Your task to perform on an android device: Open Google Chrome Image 0: 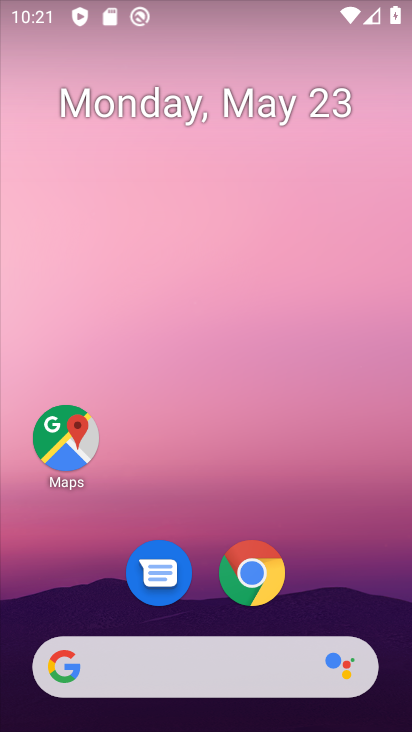
Step 0: drag from (350, 539) to (254, 5)
Your task to perform on an android device: Open Google Chrome Image 1: 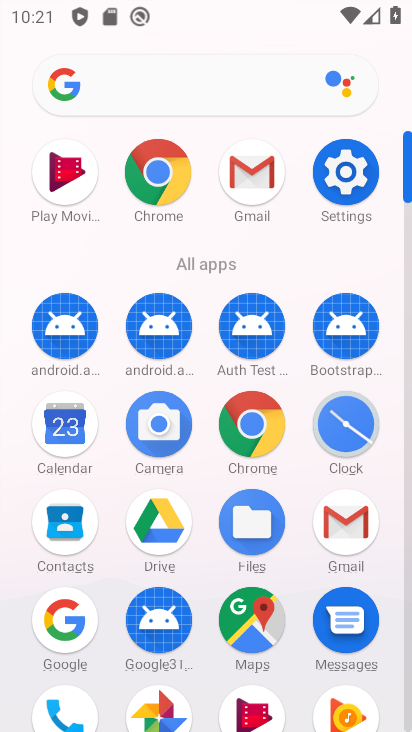
Step 1: drag from (12, 511) to (9, 166)
Your task to perform on an android device: Open Google Chrome Image 2: 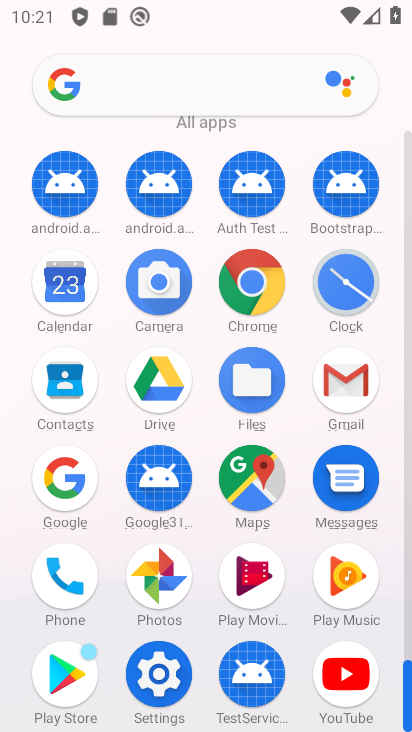
Step 2: click (252, 268)
Your task to perform on an android device: Open Google Chrome Image 3: 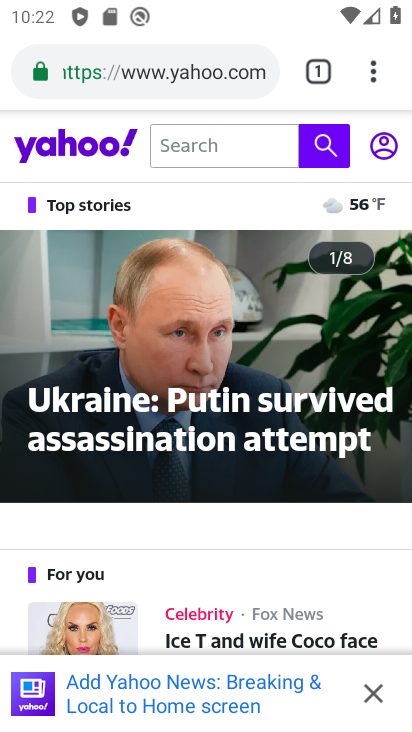
Step 3: click (233, 65)
Your task to perform on an android device: Open Google Chrome Image 4: 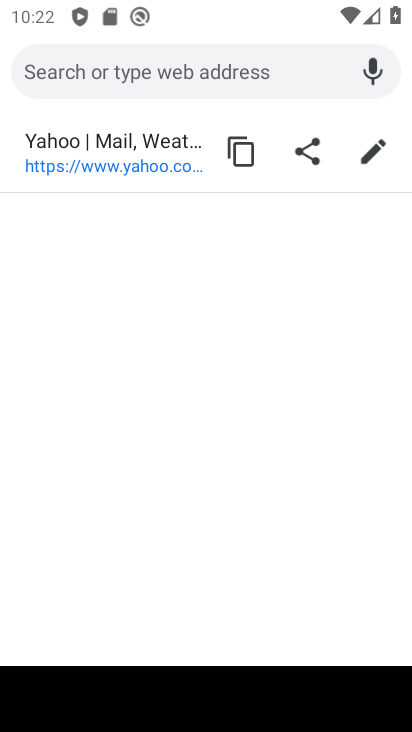
Step 4: task complete